Your task to perform on an android device: open app "Microsoft Outlook" Image 0: 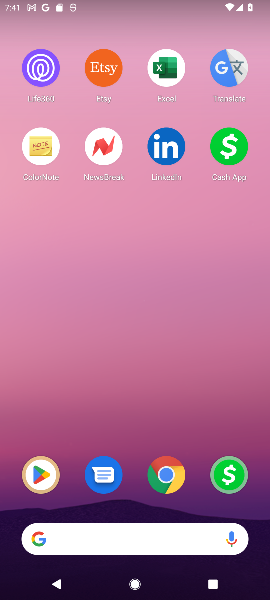
Step 0: drag from (185, 535) to (105, 137)
Your task to perform on an android device: open app "Microsoft Outlook" Image 1: 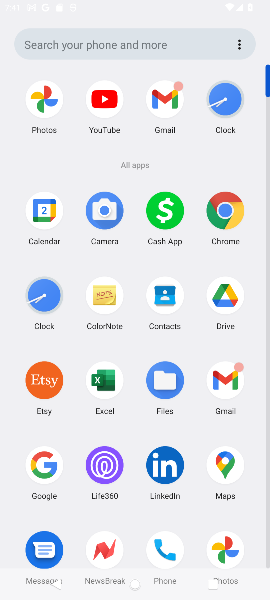
Step 1: drag from (107, 270) to (136, 86)
Your task to perform on an android device: open app "Microsoft Outlook" Image 2: 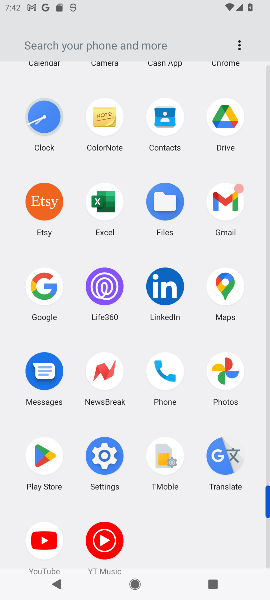
Step 2: drag from (181, 449) to (167, 158)
Your task to perform on an android device: open app "Microsoft Outlook" Image 3: 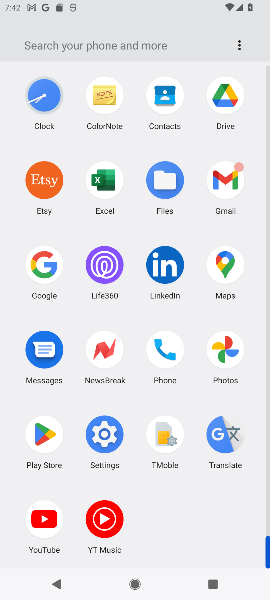
Step 3: drag from (71, 540) to (81, 307)
Your task to perform on an android device: open app "Microsoft Outlook" Image 4: 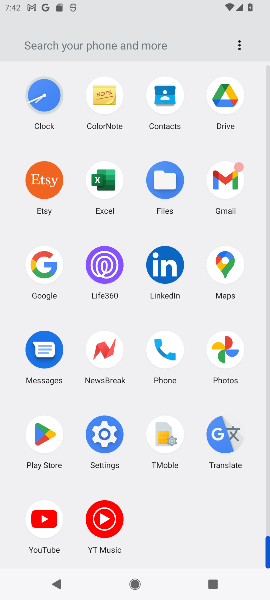
Step 4: click (46, 439)
Your task to perform on an android device: open app "Microsoft Outlook" Image 5: 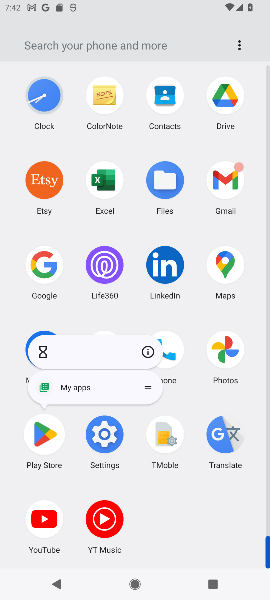
Step 5: click (46, 439)
Your task to perform on an android device: open app "Microsoft Outlook" Image 6: 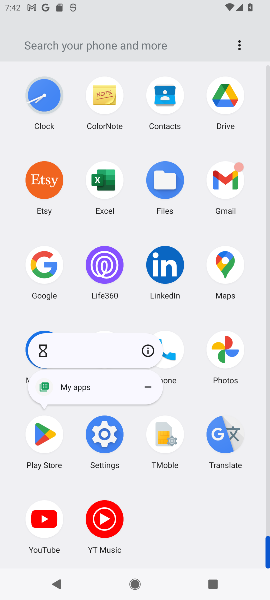
Step 6: click (46, 438)
Your task to perform on an android device: open app "Microsoft Outlook" Image 7: 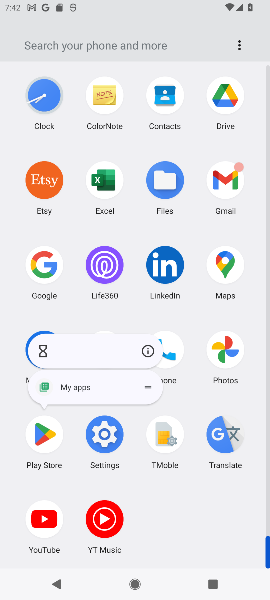
Step 7: click (46, 444)
Your task to perform on an android device: open app "Microsoft Outlook" Image 8: 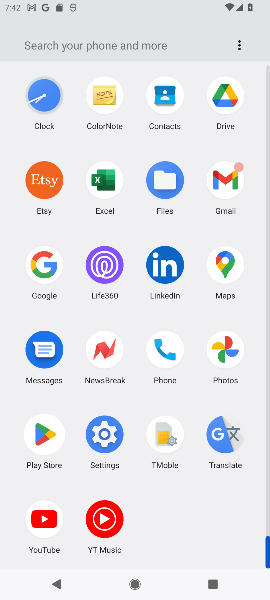
Step 8: click (45, 445)
Your task to perform on an android device: open app "Microsoft Outlook" Image 9: 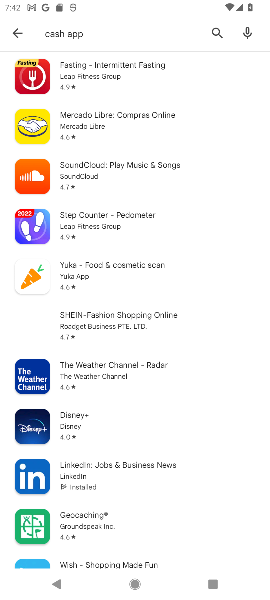
Step 9: drag from (75, 157) to (85, 440)
Your task to perform on an android device: open app "Microsoft Outlook" Image 10: 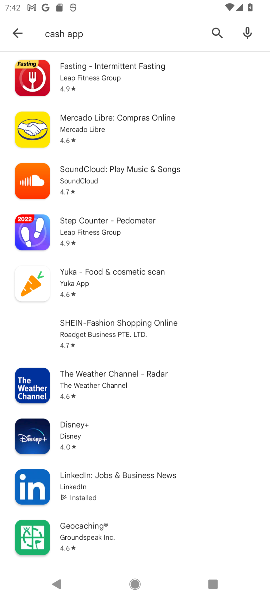
Step 10: drag from (138, 344) to (154, 465)
Your task to perform on an android device: open app "Microsoft Outlook" Image 11: 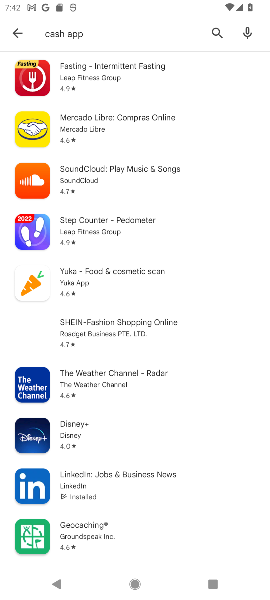
Step 11: drag from (136, 185) to (147, 455)
Your task to perform on an android device: open app "Microsoft Outlook" Image 12: 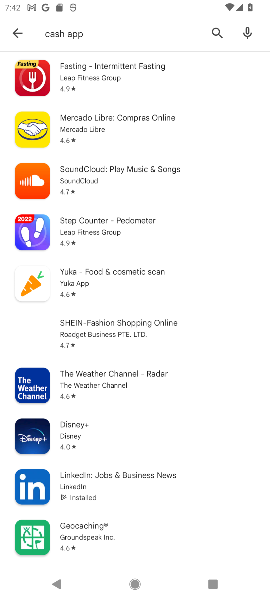
Step 12: click (127, 552)
Your task to perform on an android device: open app "Microsoft Outlook" Image 13: 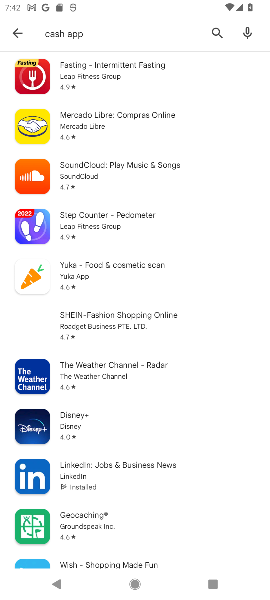
Step 13: click (17, 37)
Your task to perform on an android device: open app "Microsoft Outlook" Image 14: 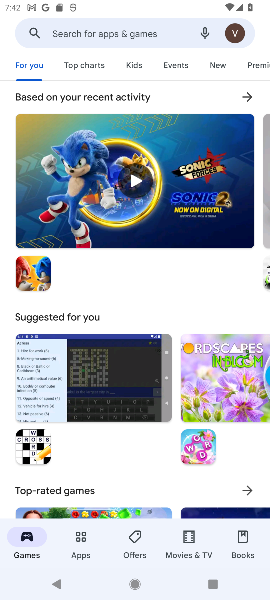
Step 14: click (72, 32)
Your task to perform on an android device: open app "Microsoft Outlook" Image 15: 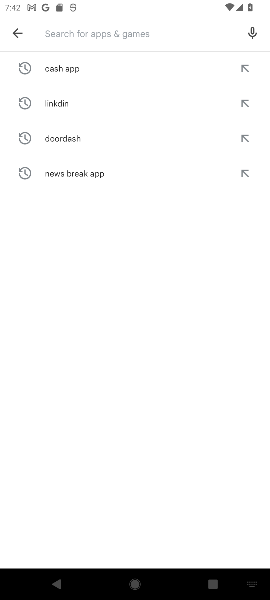
Step 15: type "microsoft outlook"
Your task to perform on an android device: open app "Microsoft Outlook" Image 16: 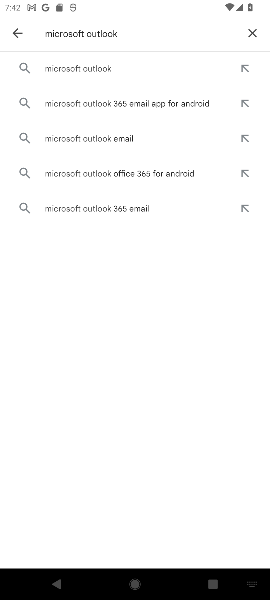
Step 16: click (84, 71)
Your task to perform on an android device: open app "Microsoft Outlook" Image 17: 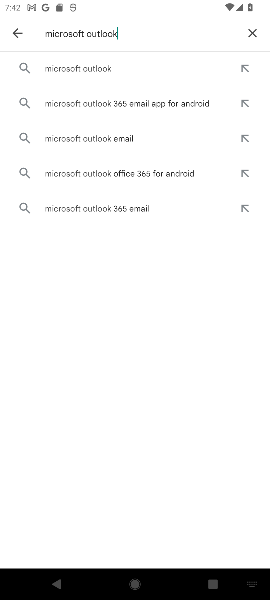
Step 17: click (84, 71)
Your task to perform on an android device: open app "Microsoft Outlook" Image 18: 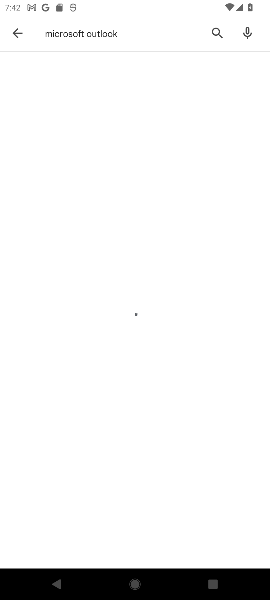
Step 18: click (93, 76)
Your task to perform on an android device: open app "Microsoft Outlook" Image 19: 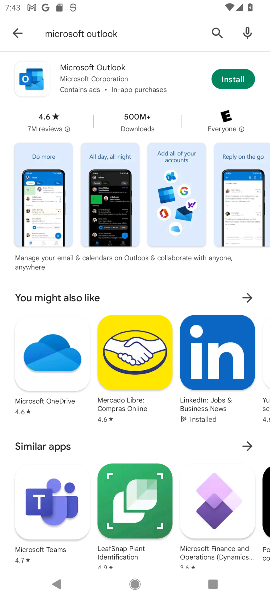
Step 19: click (241, 81)
Your task to perform on an android device: open app "Microsoft Outlook" Image 20: 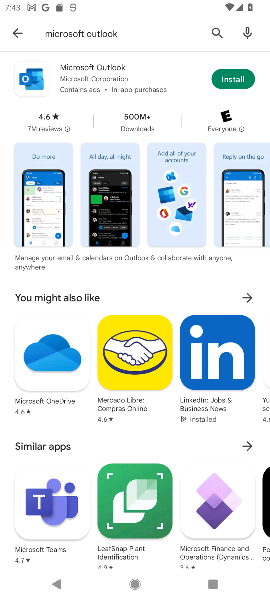
Step 20: click (241, 81)
Your task to perform on an android device: open app "Microsoft Outlook" Image 21: 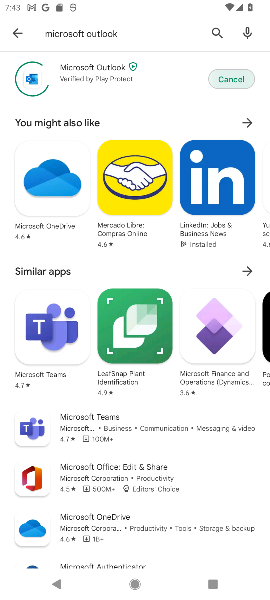
Step 21: click (241, 81)
Your task to perform on an android device: open app "Microsoft Outlook" Image 22: 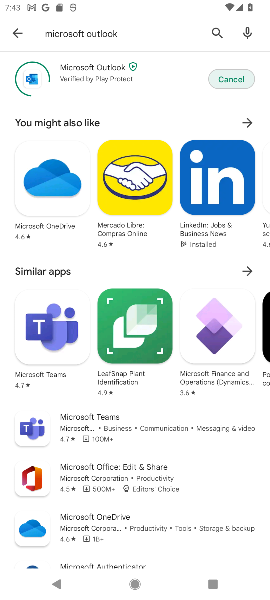
Step 22: click (238, 80)
Your task to perform on an android device: open app "Microsoft Outlook" Image 23: 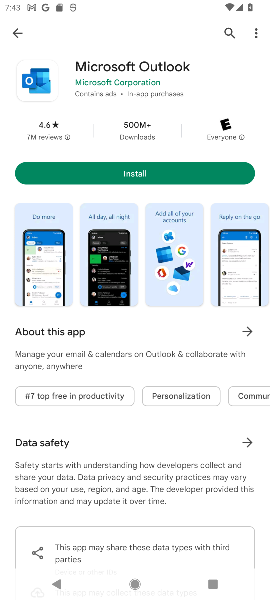
Step 23: click (148, 178)
Your task to perform on an android device: open app "Microsoft Outlook" Image 24: 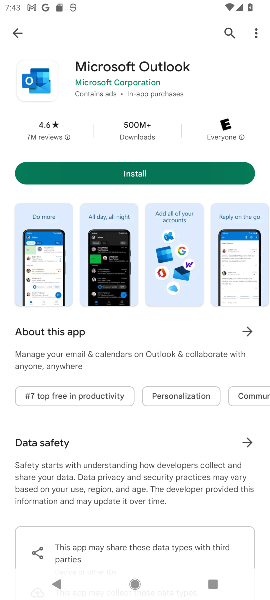
Step 24: click (148, 177)
Your task to perform on an android device: open app "Microsoft Outlook" Image 25: 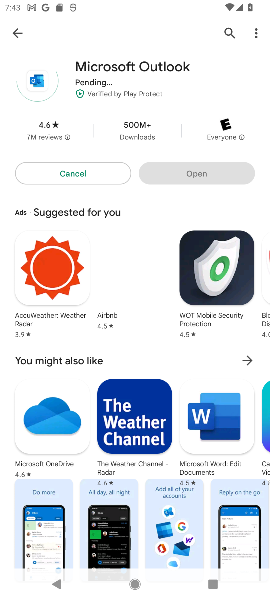
Step 25: click (148, 176)
Your task to perform on an android device: open app "Microsoft Outlook" Image 26: 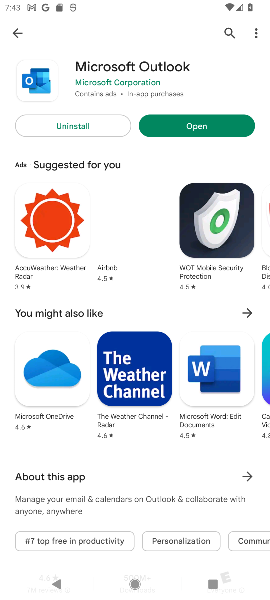
Step 26: click (199, 122)
Your task to perform on an android device: open app "Microsoft Outlook" Image 27: 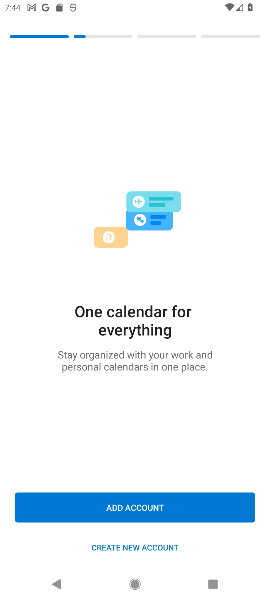
Step 27: task complete